Your task to perform on an android device: Open calendar and show me the fourth week of next month Image 0: 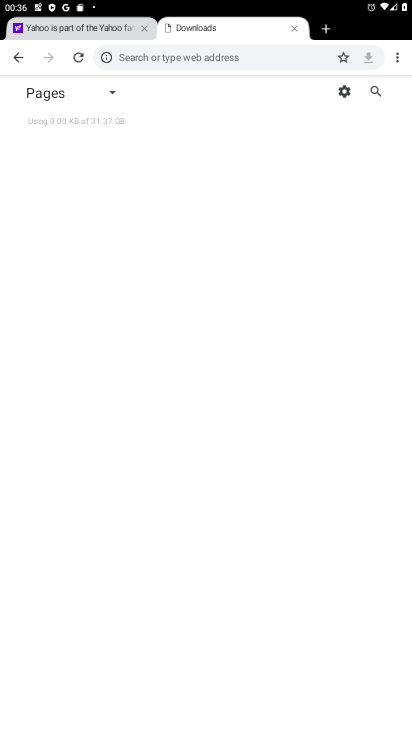
Step 0: press home button
Your task to perform on an android device: Open calendar and show me the fourth week of next month Image 1: 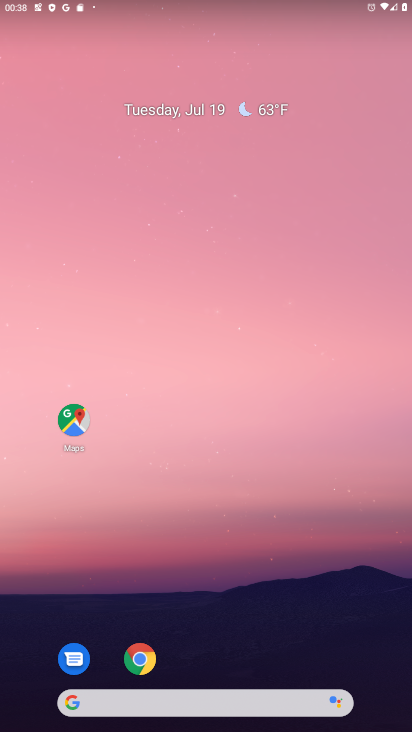
Step 1: drag from (210, 651) to (220, 8)
Your task to perform on an android device: Open calendar and show me the fourth week of next month Image 2: 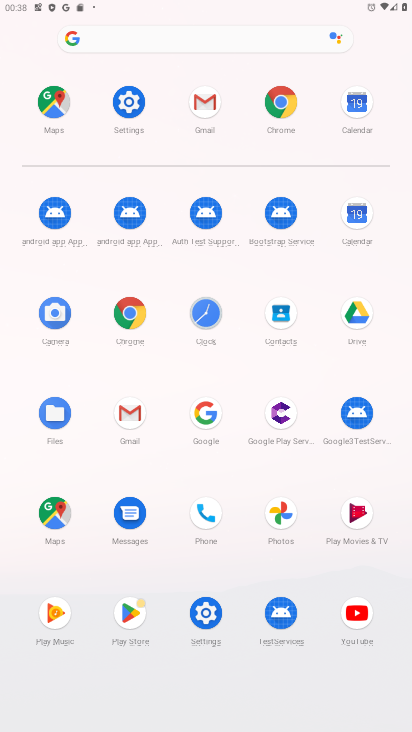
Step 2: click (376, 222)
Your task to perform on an android device: Open calendar and show me the fourth week of next month Image 3: 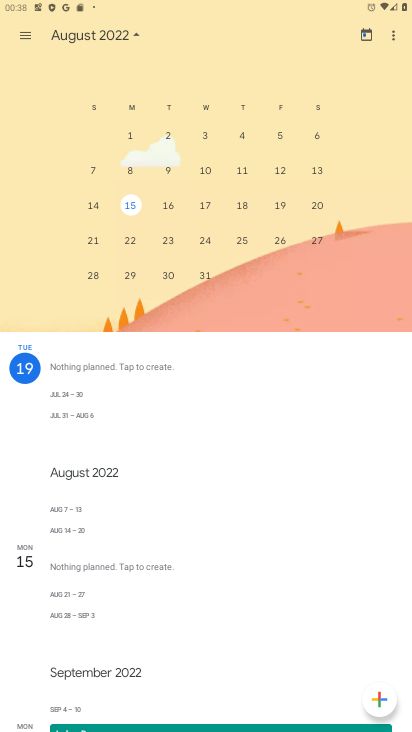
Step 3: click (131, 235)
Your task to perform on an android device: Open calendar and show me the fourth week of next month Image 4: 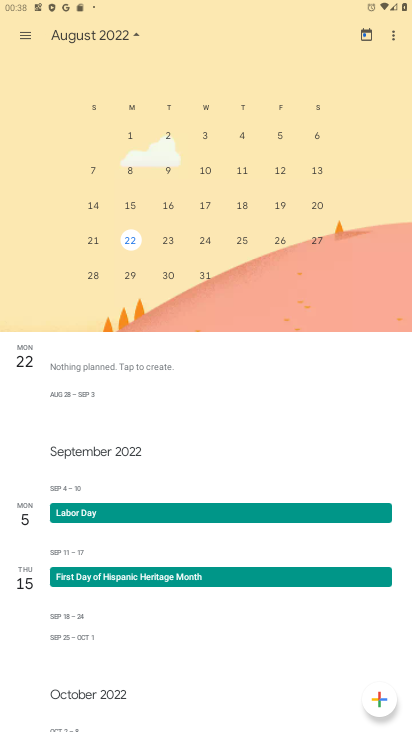
Step 4: task complete